Your task to perform on an android device: open a new tab in the chrome app Image 0: 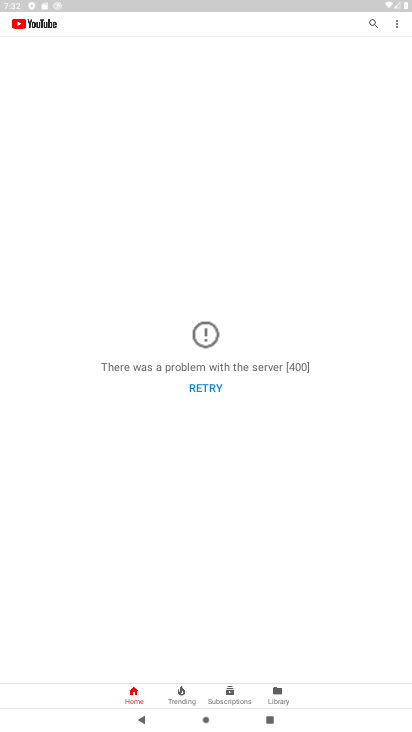
Step 0: press back button
Your task to perform on an android device: open a new tab in the chrome app Image 1: 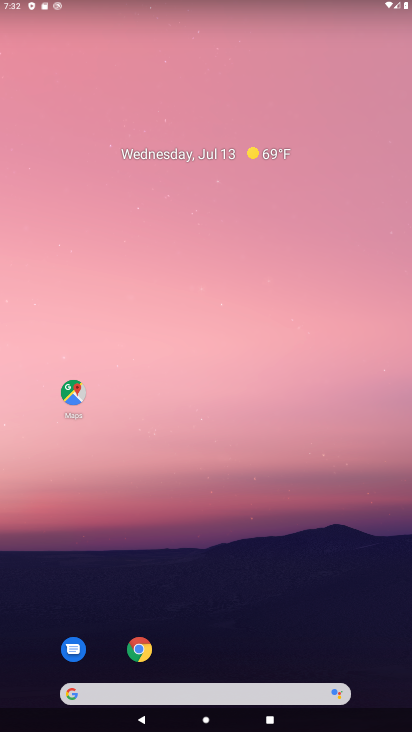
Step 1: click (135, 655)
Your task to perform on an android device: open a new tab in the chrome app Image 2: 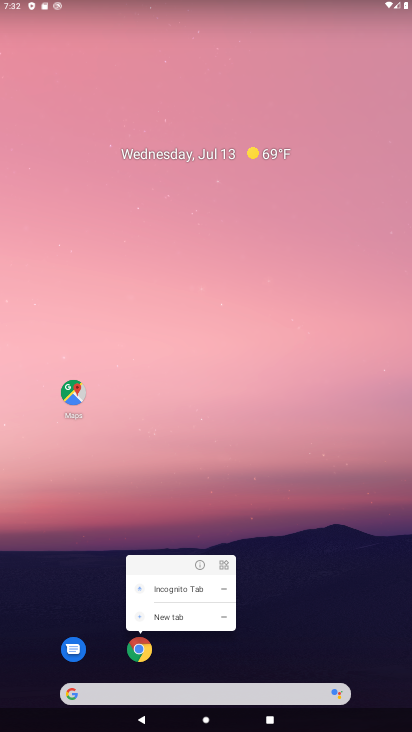
Step 2: click (137, 649)
Your task to perform on an android device: open a new tab in the chrome app Image 3: 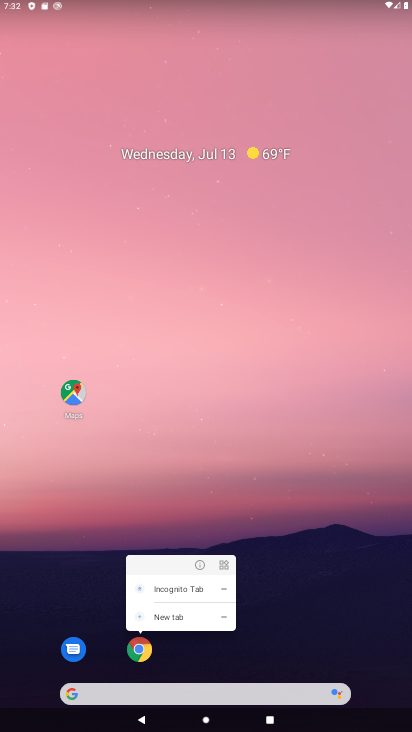
Step 3: click (138, 658)
Your task to perform on an android device: open a new tab in the chrome app Image 4: 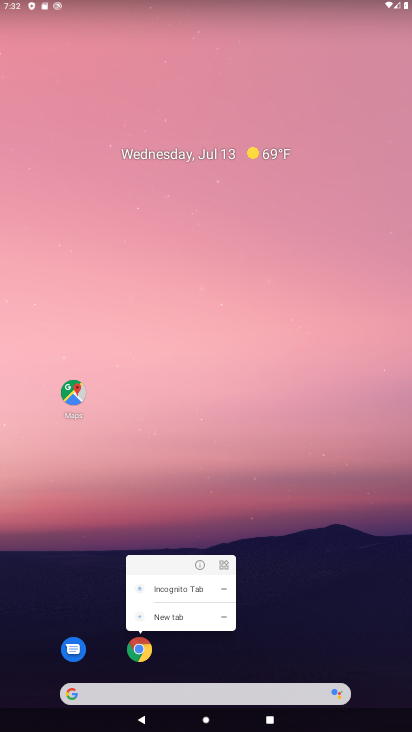
Step 4: click (137, 646)
Your task to perform on an android device: open a new tab in the chrome app Image 5: 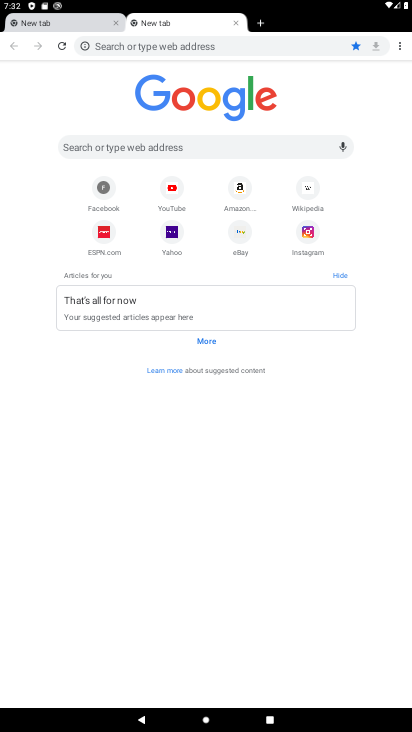
Step 5: click (398, 39)
Your task to perform on an android device: open a new tab in the chrome app Image 6: 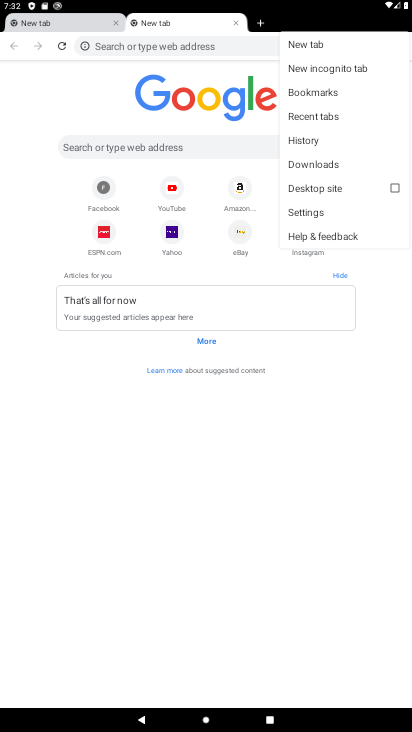
Step 6: click (334, 47)
Your task to perform on an android device: open a new tab in the chrome app Image 7: 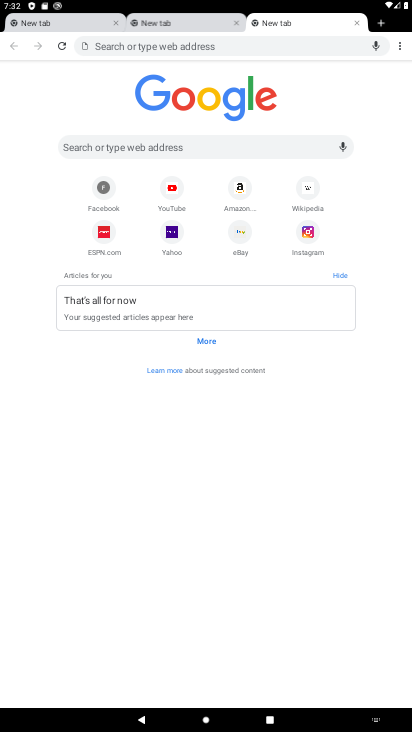
Step 7: task complete